Your task to perform on an android device: Show me productivity apps on the Play Store Image 0: 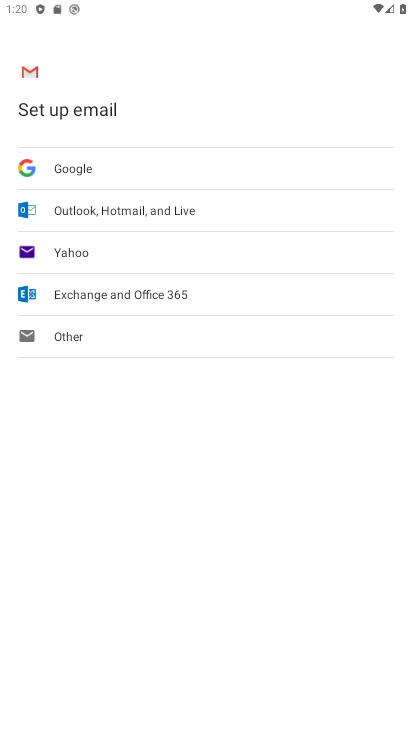
Step 0: press home button
Your task to perform on an android device: Show me productivity apps on the Play Store Image 1: 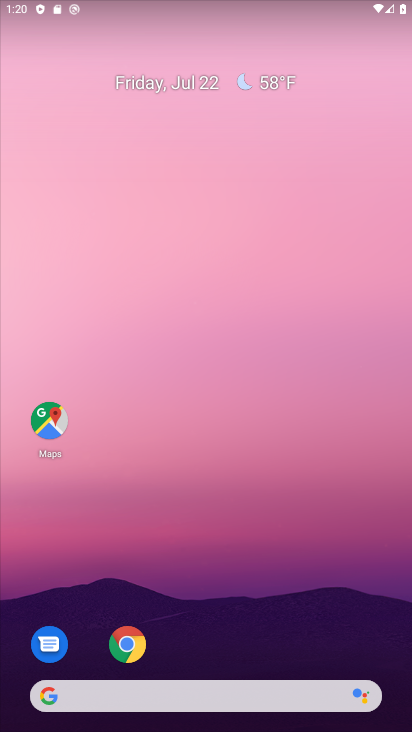
Step 1: drag from (200, 687) to (281, 87)
Your task to perform on an android device: Show me productivity apps on the Play Store Image 2: 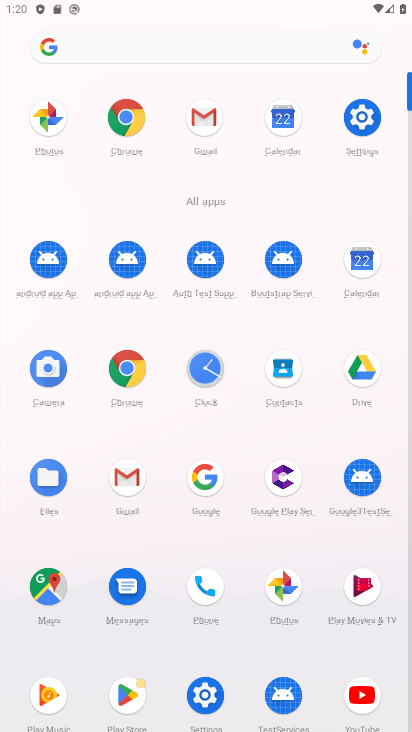
Step 2: click (114, 702)
Your task to perform on an android device: Show me productivity apps on the Play Store Image 3: 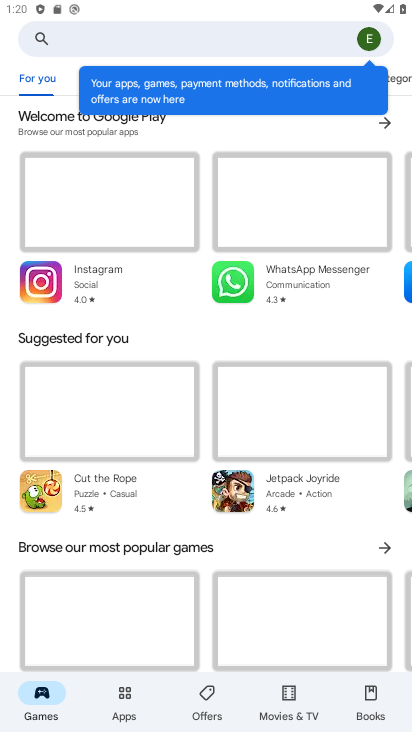
Step 3: click (124, 707)
Your task to perform on an android device: Show me productivity apps on the Play Store Image 4: 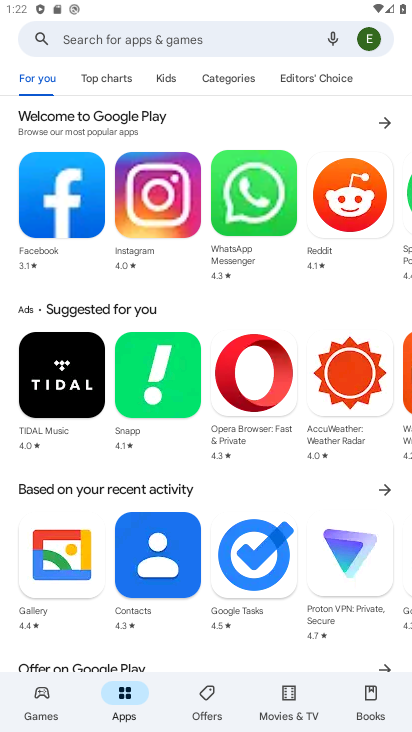
Step 4: task complete